Your task to perform on an android device: open chrome privacy settings Image 0: 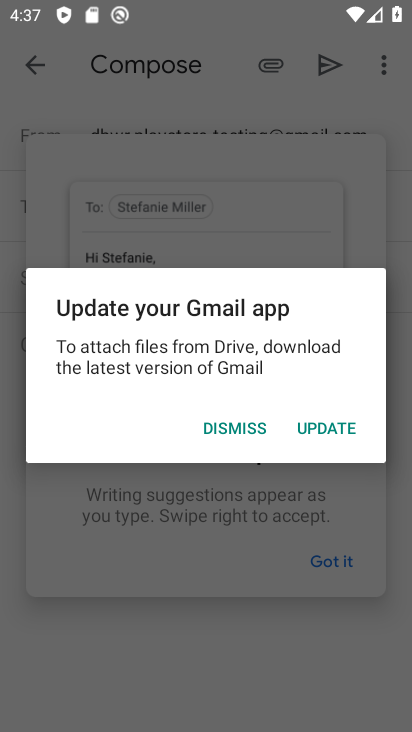
Step 0: press home button
Your task to perform on an android device: open chrome privacy settings Image 1: 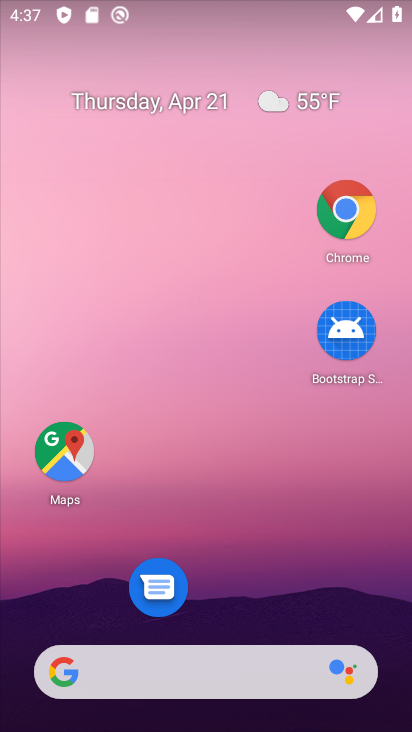
Step 1: drag from (322, 580) to (326, 108)
Your task to perform on an android device: open chrome privacy settings Image 2: 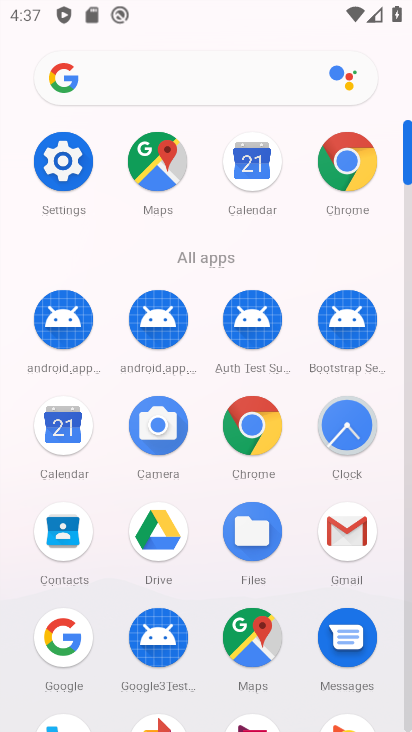
Step 2: click (350, 166)
Your task to perform on an android device: open chrome privacy settings Image 3: 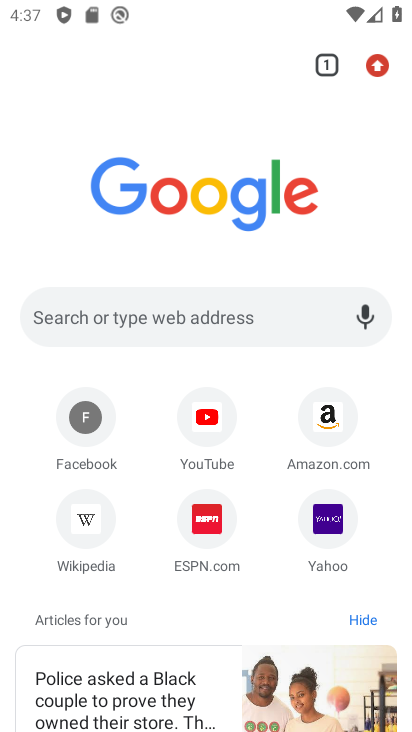
Step 3: drag from (382, 61) to (169, 616)
Your task to perform on an android device: open chrome privacy settings Image 4: 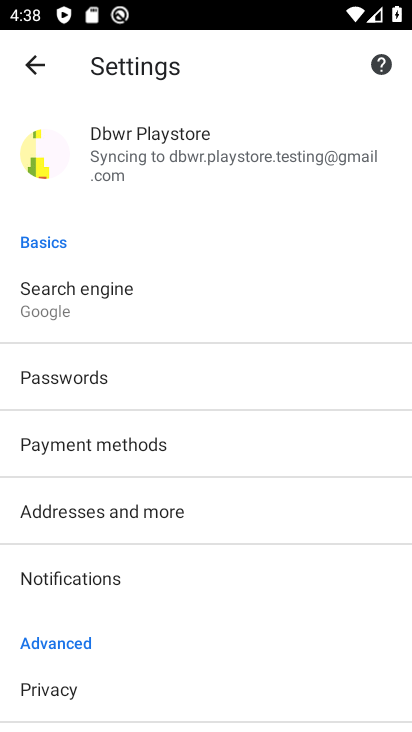
Step 4: drag from (321, 681) to (328, 307)
Your task to perform on an android device: open chrome privacy settings Image 5: 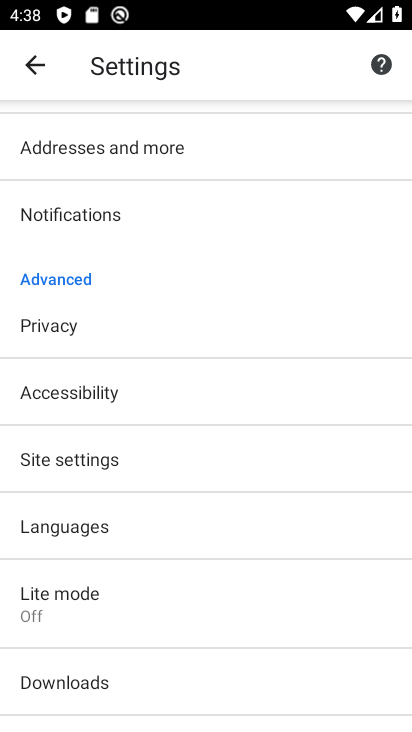
Step 5: click (78, 322)
Your task to perform on an android device: open chrome privacy settings Image 6: 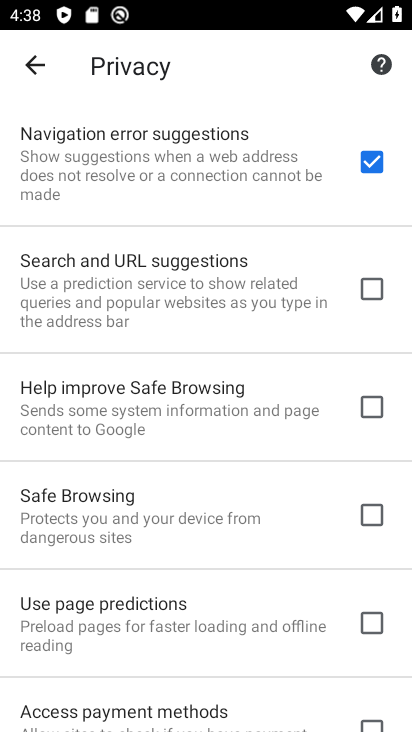
Step 6: task complete